Your task to perform on an android device: check out phone information Image 0: 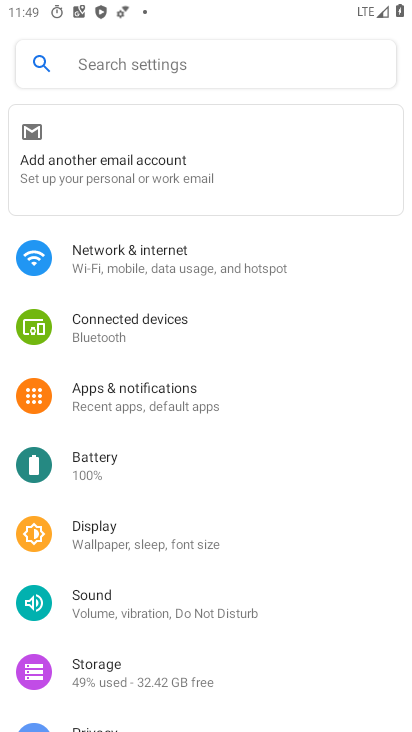
Step 0: press home button
Your task to perform on an android device: check out phone information Image 1: 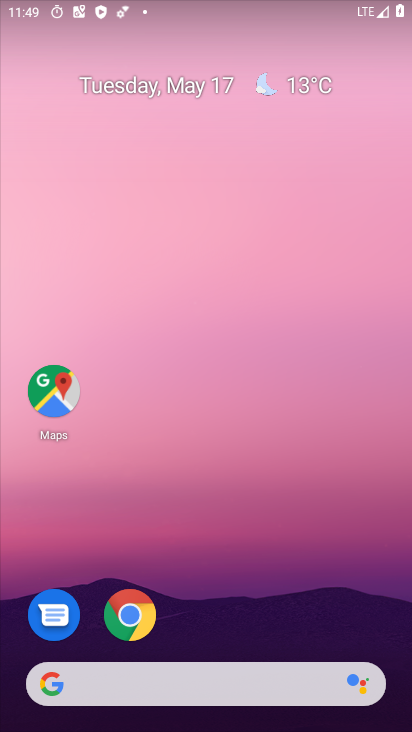
Step 1: drag from (144, 686) to (314, 130)
Your task to perform on an android device: check out phone information Image 2: 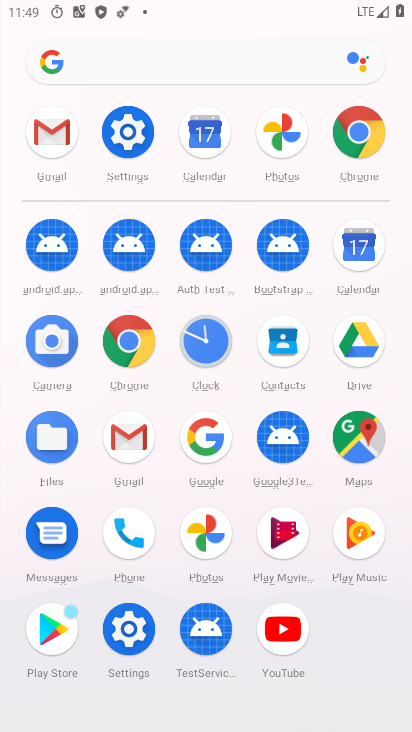
Step 2: click (132, 133)
Your task to perform on an android device: check out phone information Image 3: 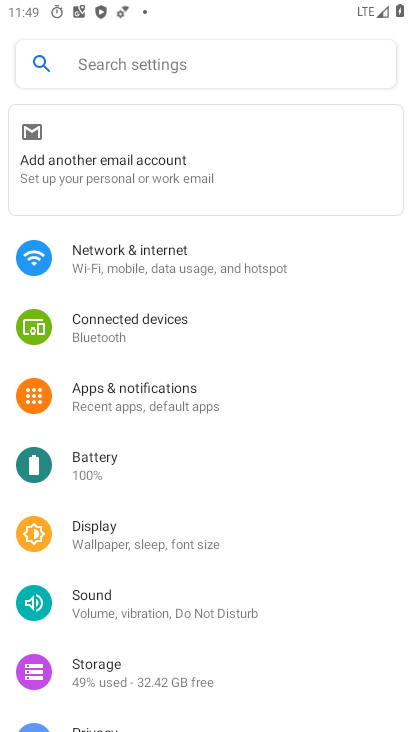
Step 3: drag from (261, 696) to (339, 7)
Your task to perform on an android device: check out phone information Image 4: 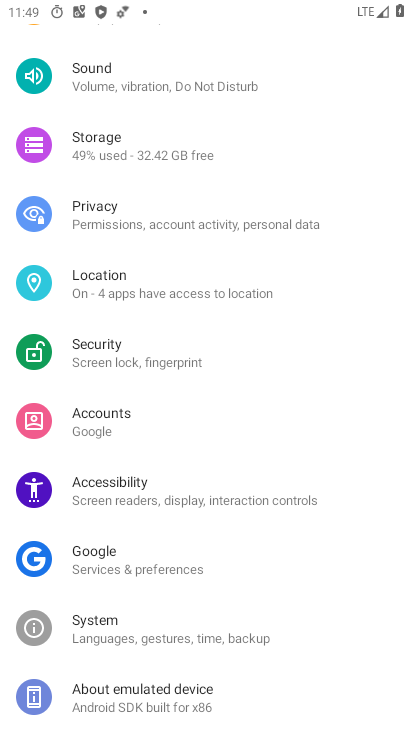
Step 4: drag from (288, 635) to (337, 186)
Your task to perform on an android device: check out phone information Image 5: 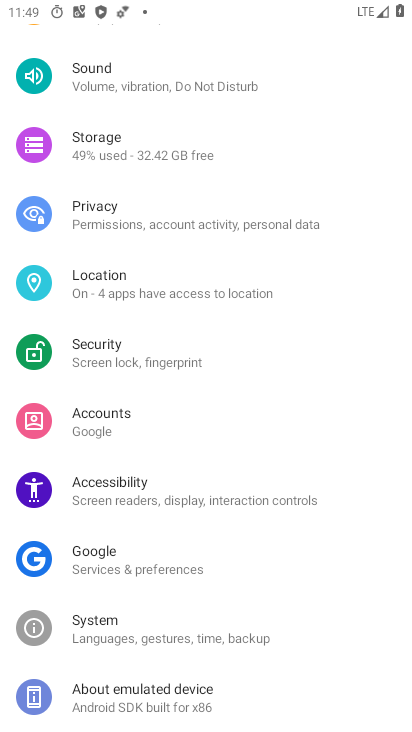
Step 5: click (171, 697)
Your task to perform on an android device: check out phone information Image 6: 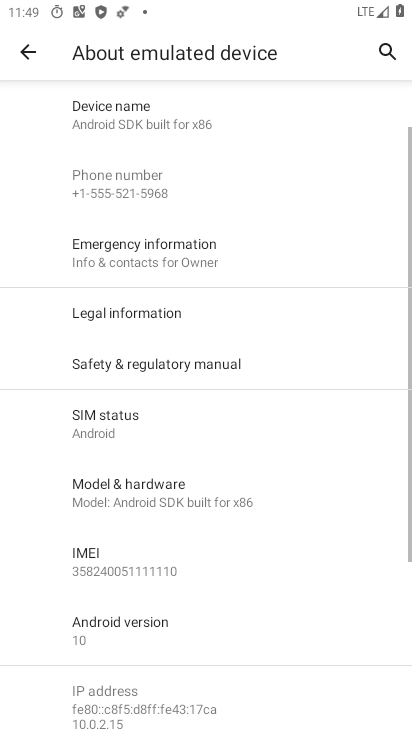
Step 6: task complete